Your task to perform on an android device: Clear the shopping cart on ebay.com. Add alienware aurora to the cart on ebay.com, then select checkout. Image 0: 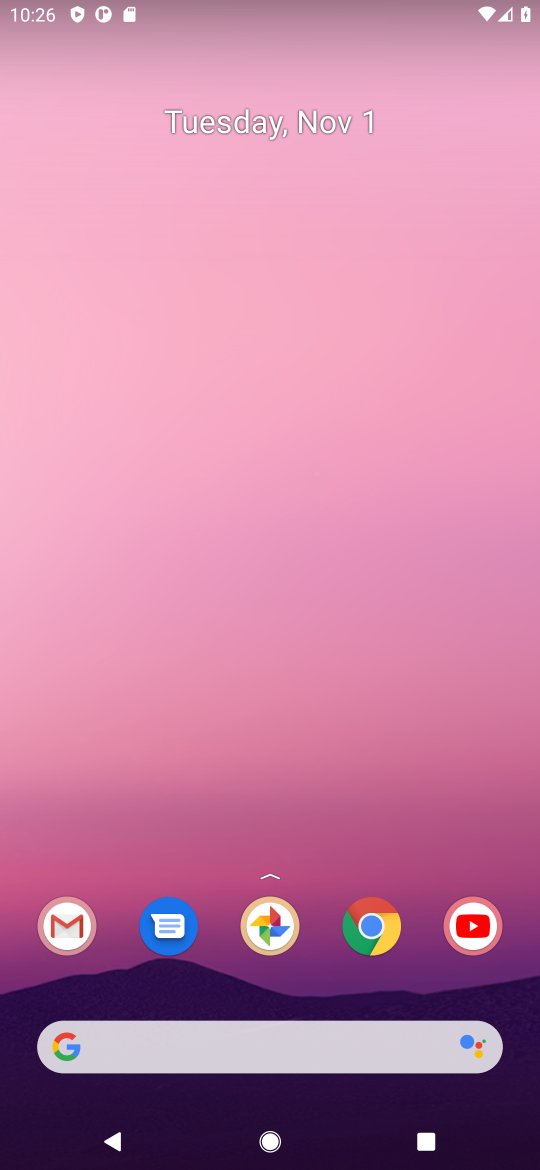
Step 0: press home button
Your task to perform on an android device: Clear the shopping cart on ebay.com. Add alienware aurora to the cart on ebay.com, then select checkout. Image 1: 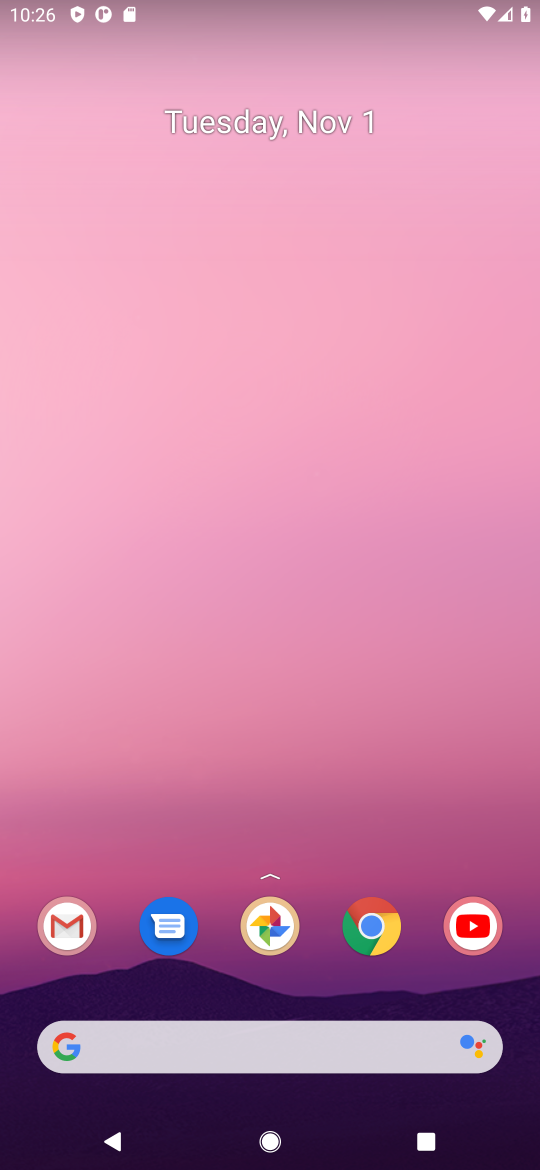
Step 1: click (352, 917)
Your task to perform on an android device: Clear the shopping cart on ebay.com. Add alienware aurora to the cart on ebay.com, then select checkout. Image 2: 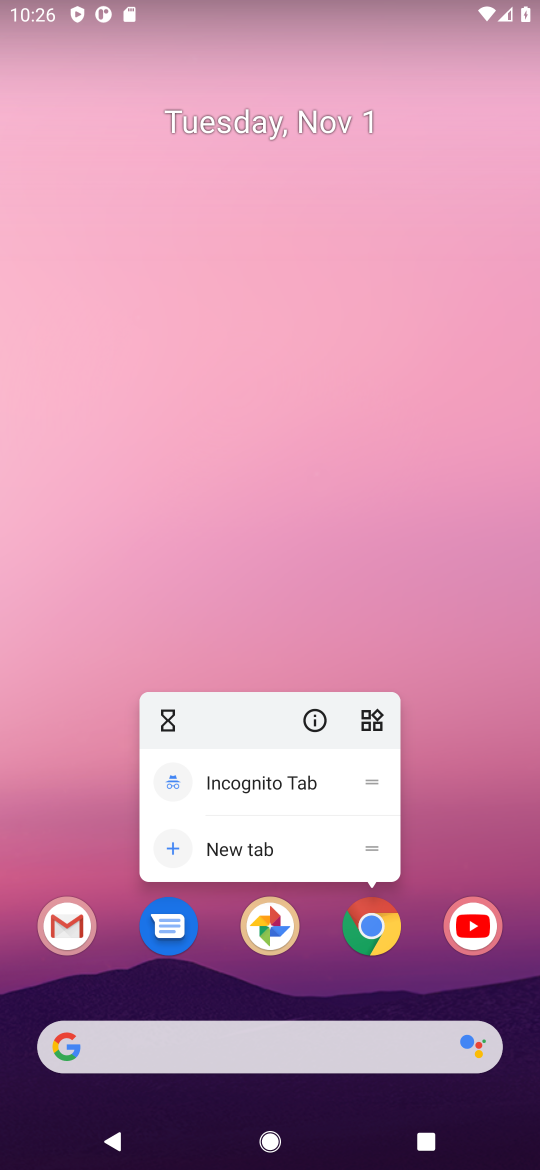
Step 2: click (367, 941)
Your task to perform on an android device: Clear the shopping cart on ebay.com. Add alienware aurora to the cart on ebay.com, then select checkout. Image 3: 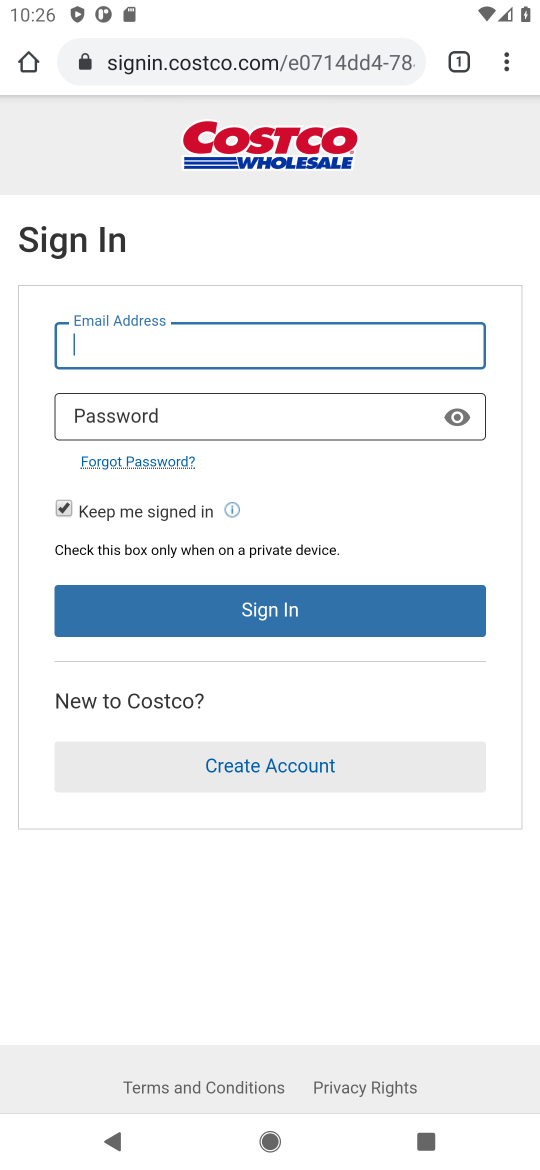
Step 3: click (263, 70)
Your task to perform on an android device: Clear the shopping cart on ebay.com. Add alienware aurora to the cart on ebay.com, then select checkout. Image 4: 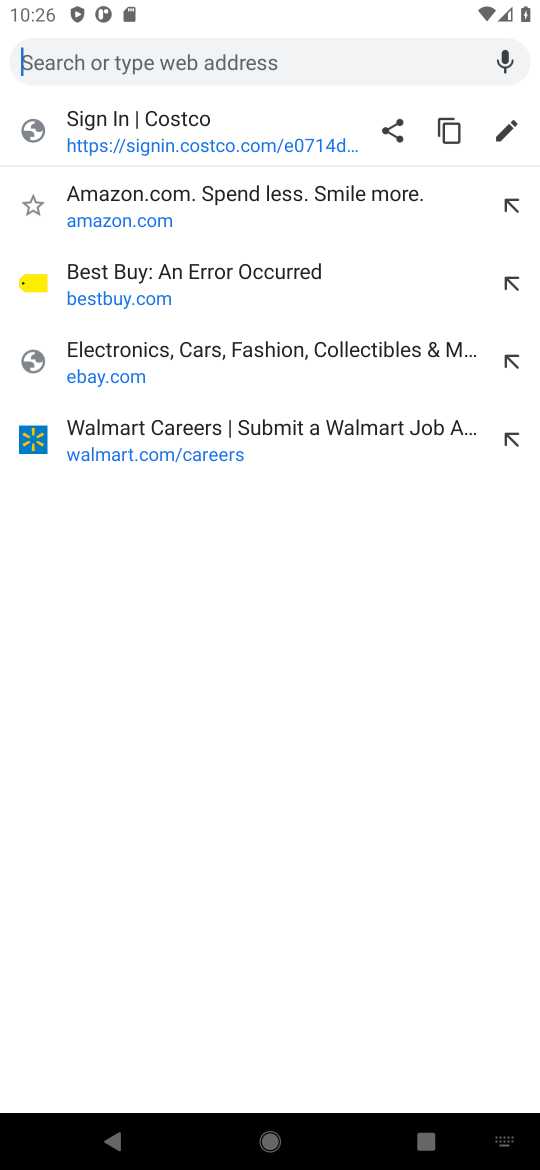
Step 4: type "ebay.com"
Your task to perform on an android device: Clear the shopping cart on ebay.com. Add alienware aurora to the cart on ebay.com, then select checkout. Image 5: 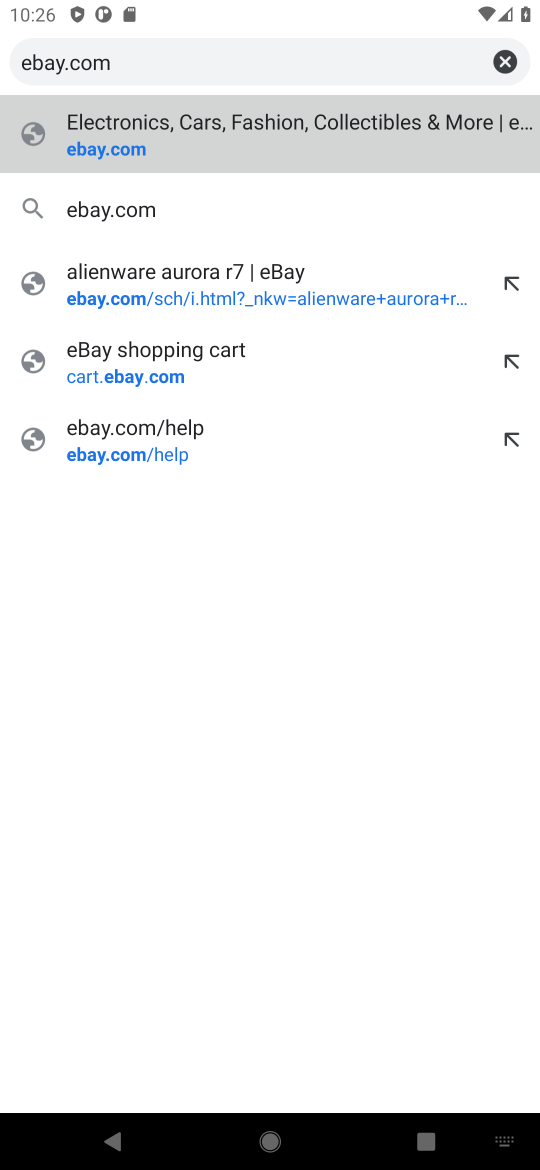
Step 5: click (132, 382)
Your task to perform on an android device: Clear the shopping cart on ebay.com. Add alienware aurora to the cart on ebay.com, then select checkout. Image 6: 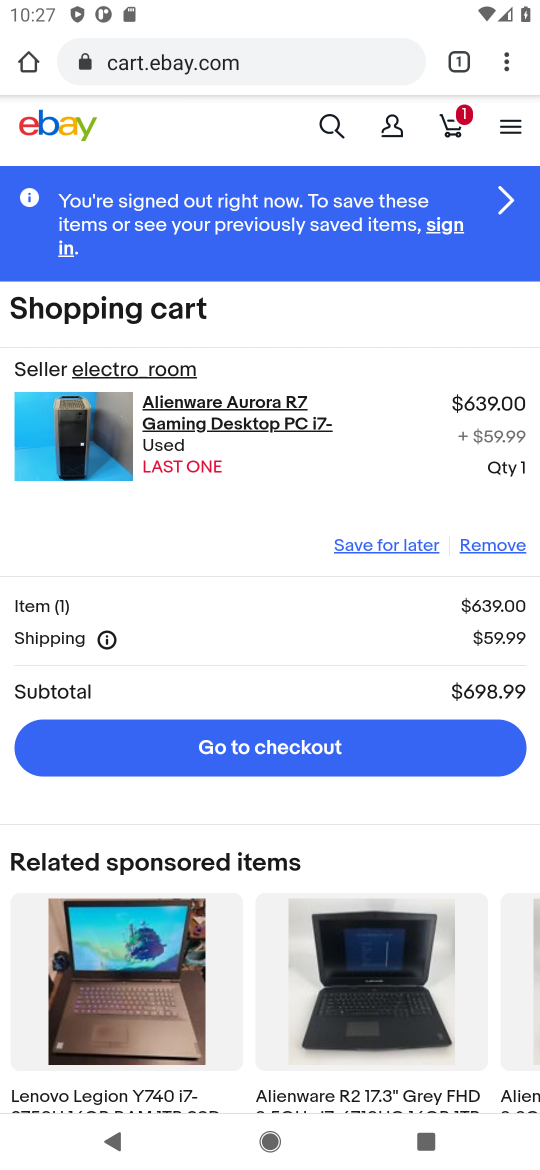
Step 6: click (321, 120)
Your task to perform on an android device: Clear the shopping cart on ebay.com. Add alienware aurora to the cart on ebay.com, then select checkout. Image 7: 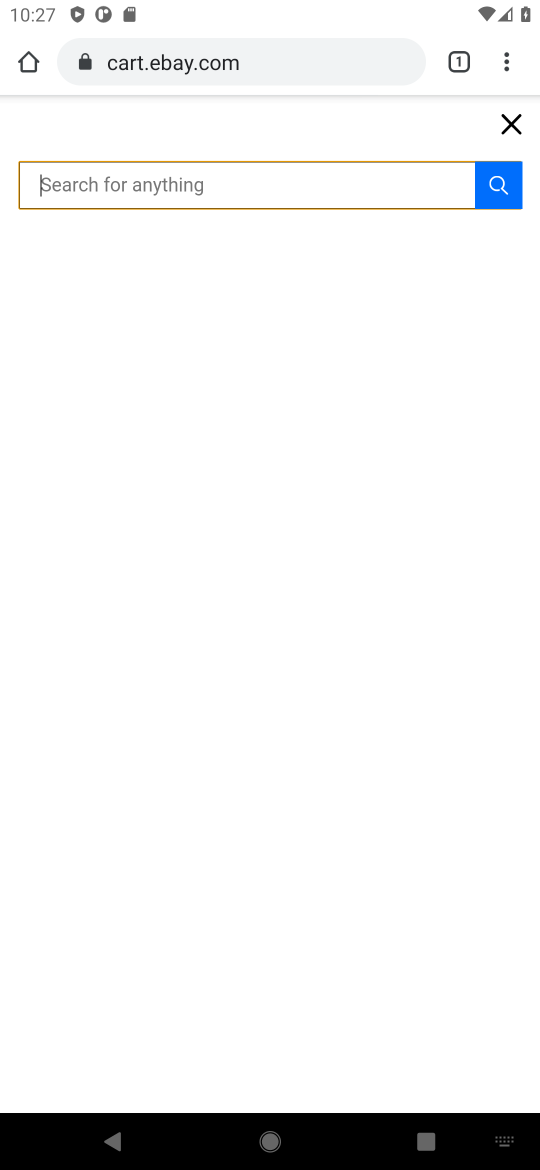
Step 7: type "alienware aurora"
Your task to perform on an android device: Clear the shopping cart on ebay.com. Add alienware aurora to the cart on ebay.com, then select checkout. Image 8: 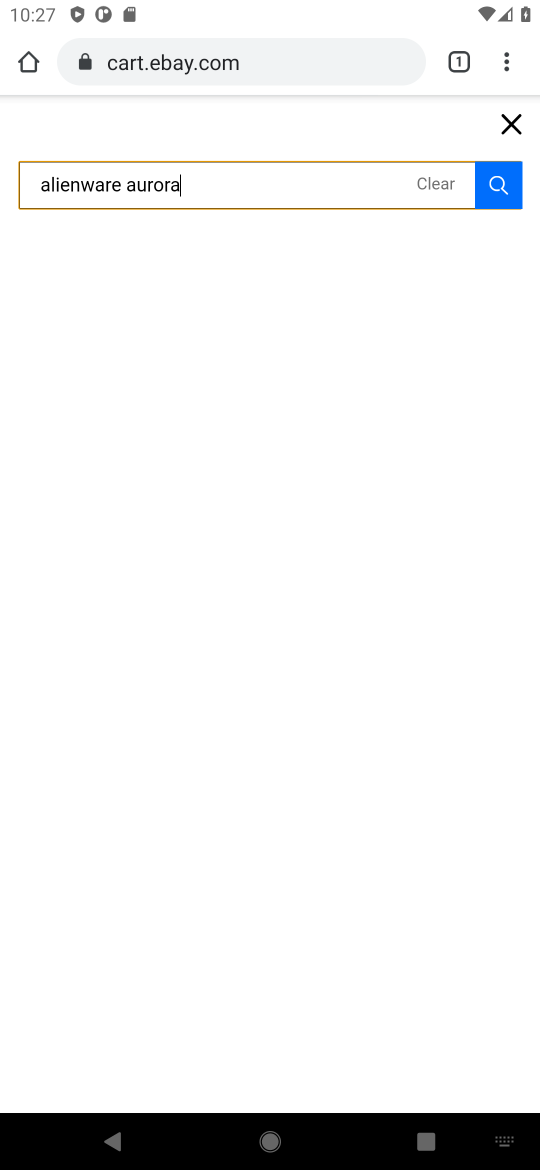
Step 8: type ""
Your task to perform on an android device: Clear the shopping cart on ebay.com. Add alienware aurora to the cart on ebay.com, then select checkout. Image 9: 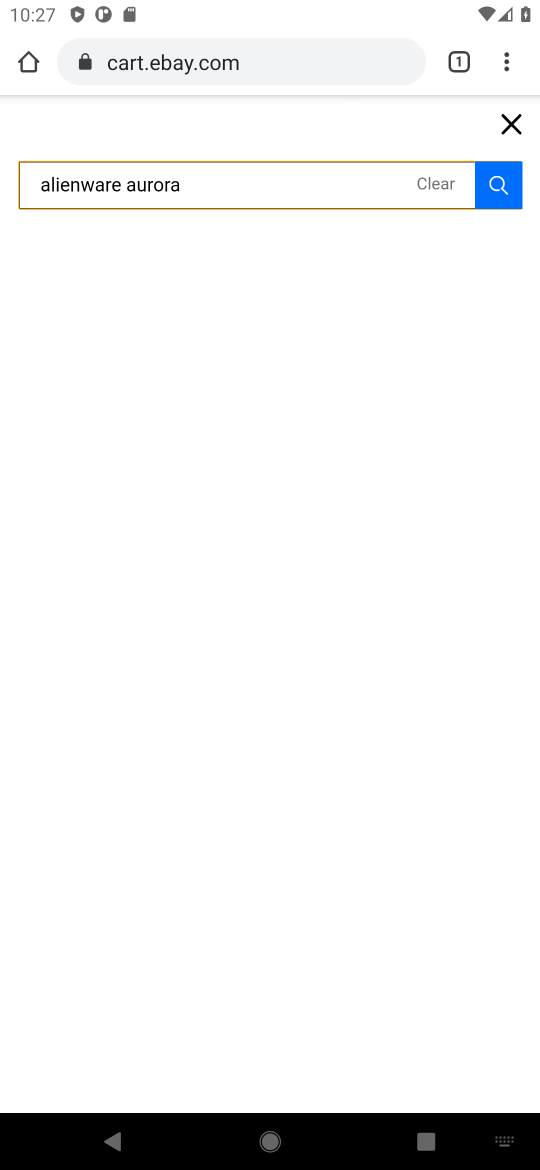
Step 9: click (496, 185)
Your task to perform on an android device: Clear the shopping cart on ebay.com. Add alienware aurora to the cart on ebay.com, then select checkout. Image 10: 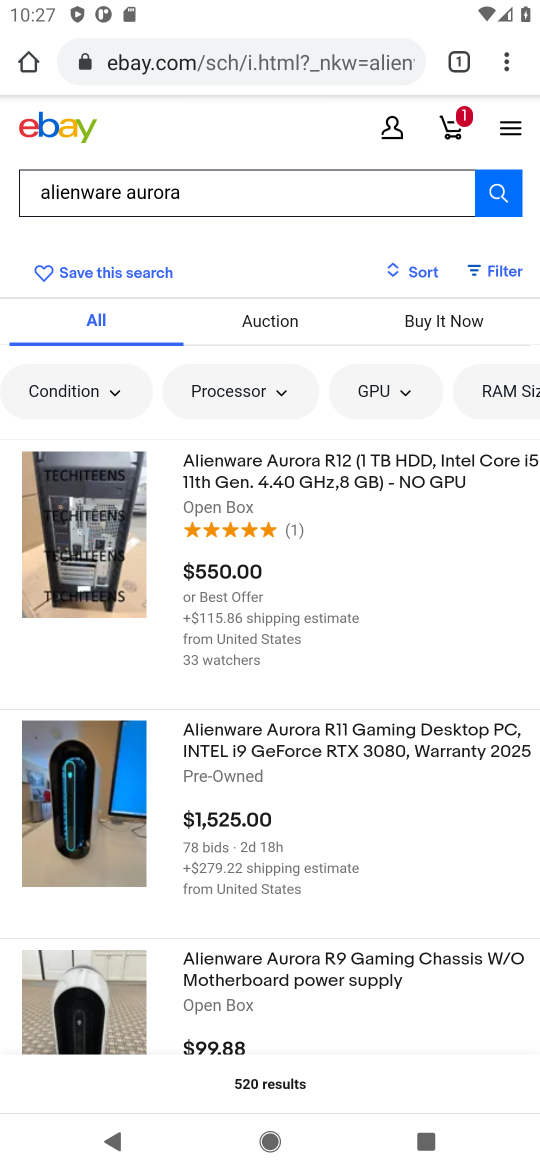
Step 10: click (217, 473)
Your task to perform on an android device: Clear the shopping cart on ebay.com. Add alienware aurora to the cart on ebay.com, then select checkout. Image 11: 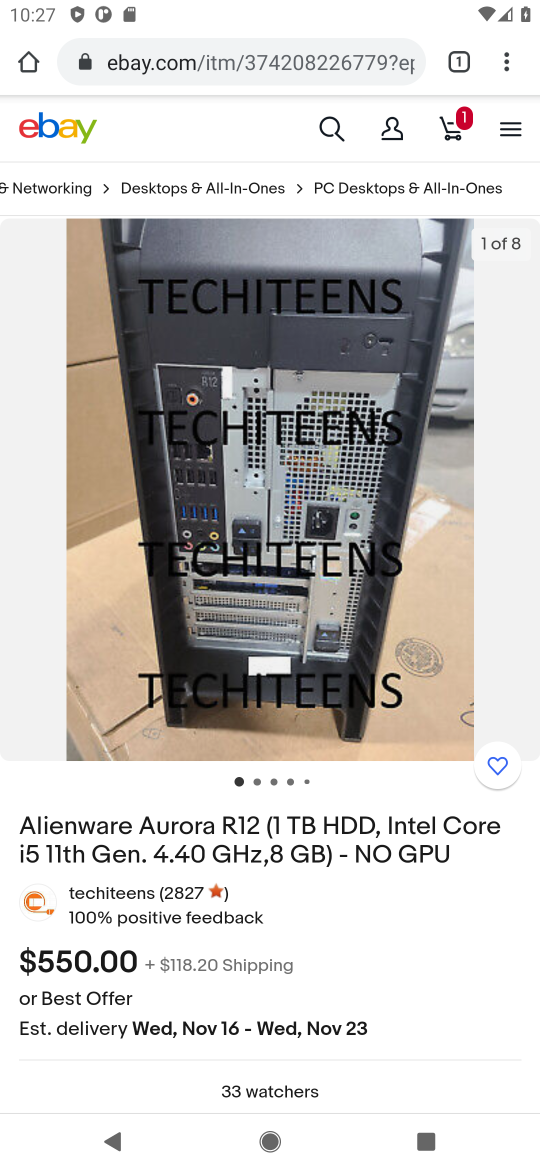
Step 11: drag from (290, 958) to (312, 242)
Your task to perform on an android device: Clear the shopping cart on ebay.com. Add alienware aurora to the cart on ebay.com, then select checkout. Image 12: 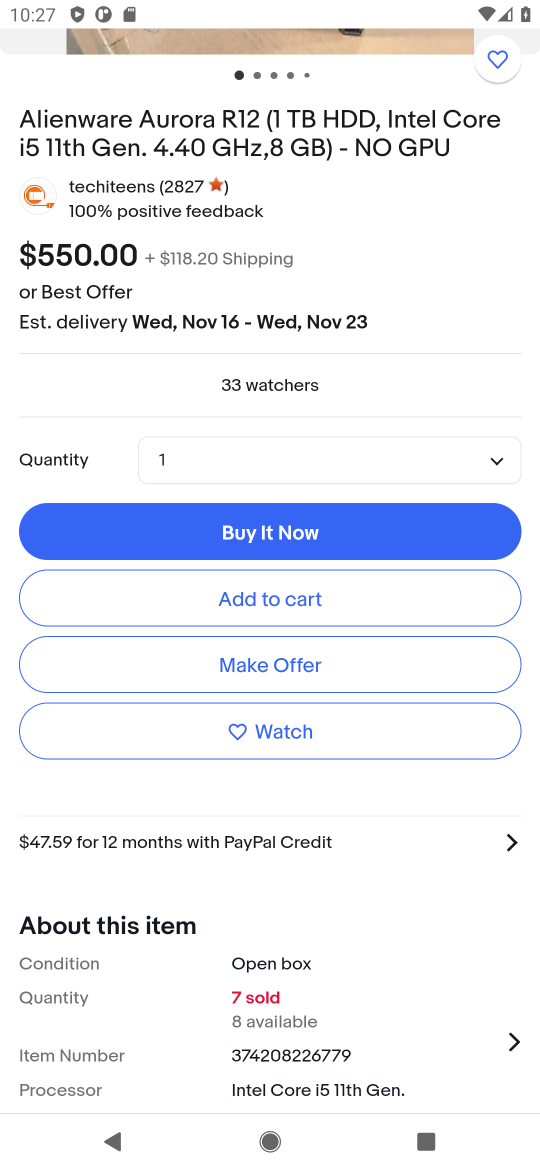
Step 12: click (256, 600)
Your task to perform on an android device: Clear the shopping cart on ebay.com. Add alienware aurora to the cart on ebay.com, then select checkout. Image 13: 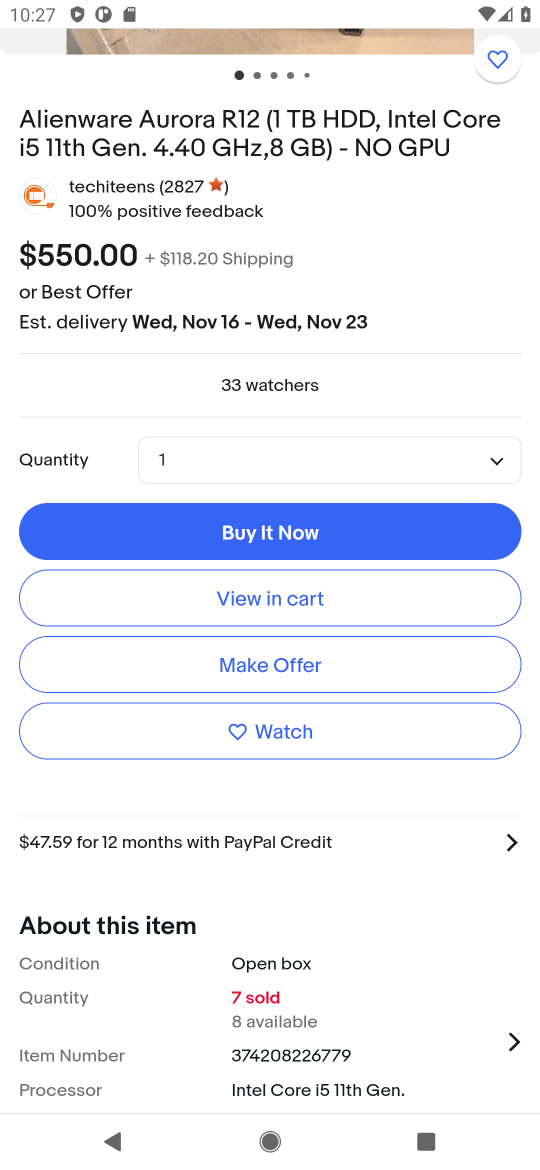
Step 13: click (256, 600)
Your task to perform on an android device: Clear the shopping cart on ebay.com. Add alienware aurora to the cart on ebay.com, then select checkout. Image 14: 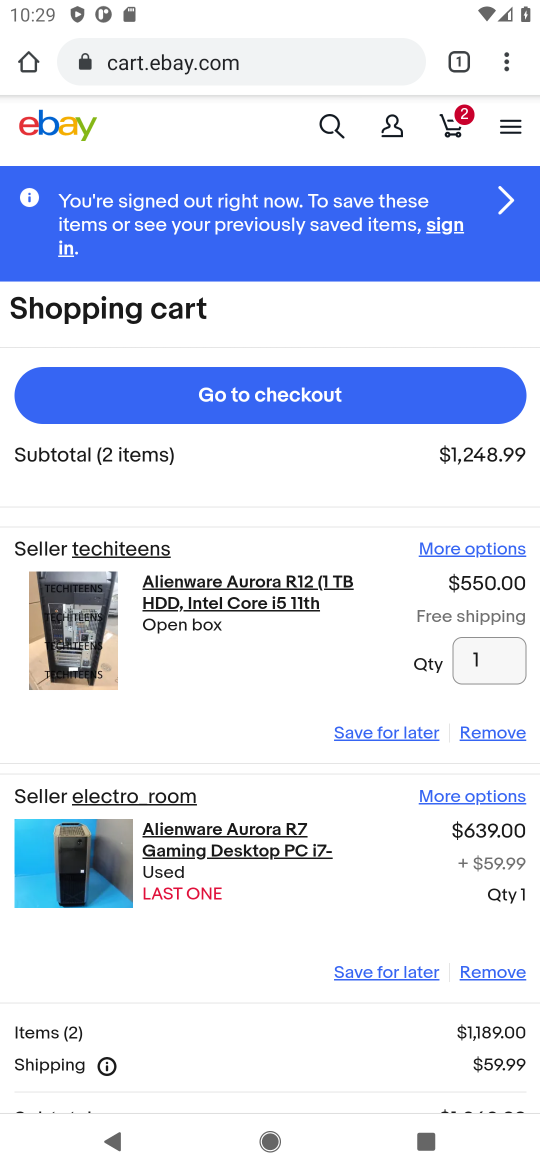
Step 14: click (305, 394)
Your task to perform on an android device: Clear the shopping cart on ebay.com. Add alienware aurora to the cart on ebay.com, then select checkout. Image 15: 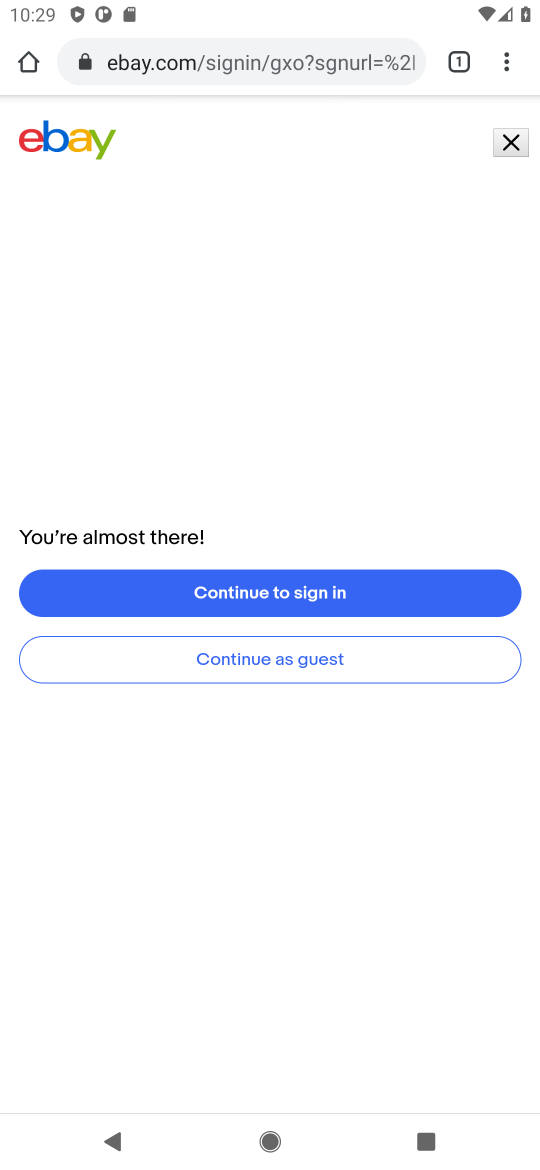
Step 15: task complete